Your task to perform on an android device: Do I have any events tomorrow? Image 0: 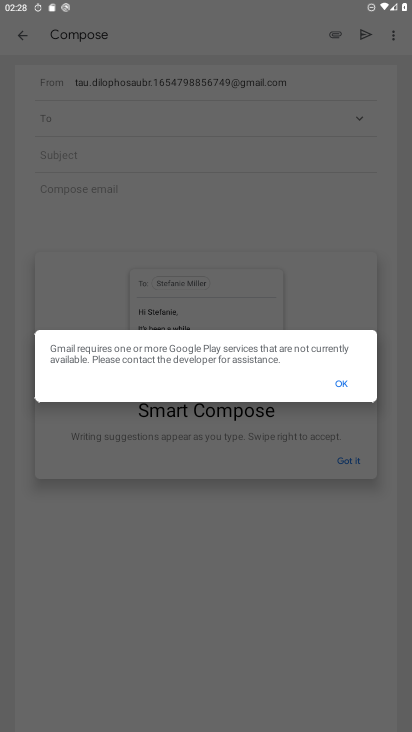
Step 0: press home button
Your task to perform on an android device: Do I have any events tomorrow? Image 1: 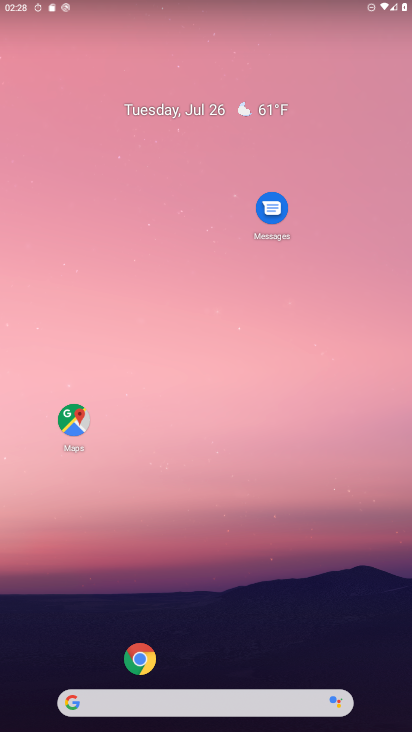
Step 1: drag from (17, 706) to (64, 91)
Your task to perform on an android device: Do I have any events tomorrow? Image 2: 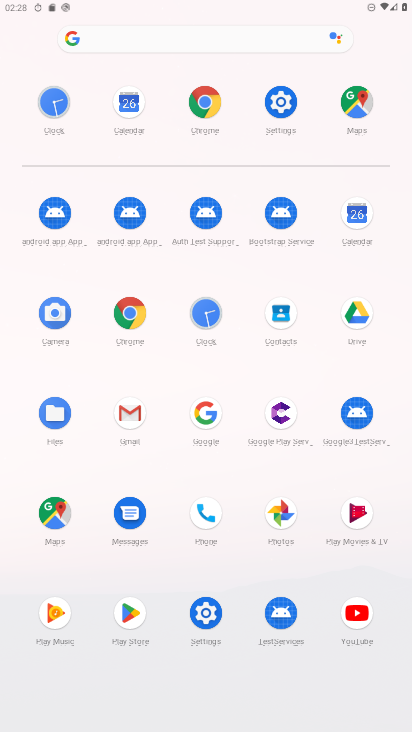
Step 2: click (344, 213)
Your task to perform on an android device: Do I have any events tomorrow? Image 3: 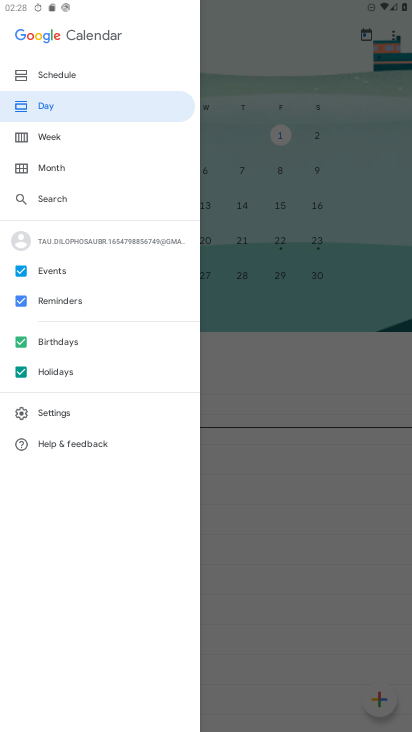
Step 3: click (81, 77)
Your task to perform on an android device: Do I have any events tomorrow? Image 4: 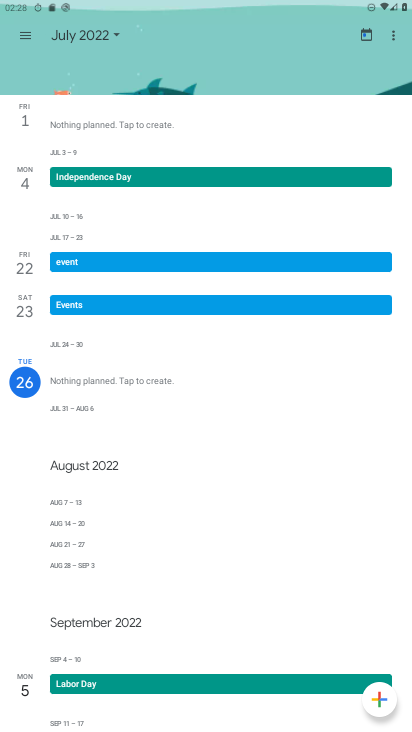
Step 4: task complete